Your task to perform on an android device: Go to display settings Image 0: 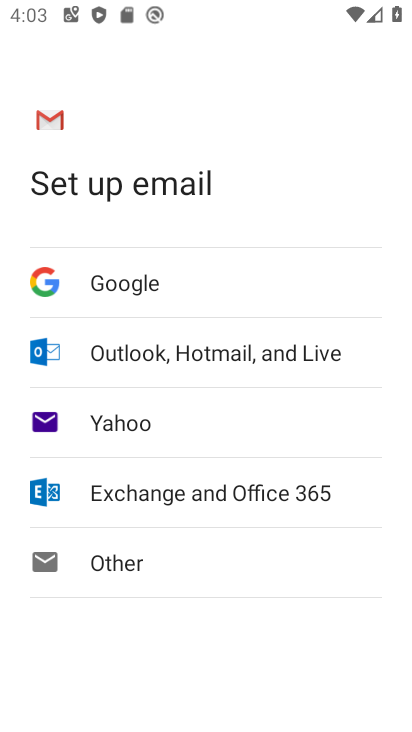
Step 0: press home button
Your task to perform on an android device: Go to display settings Image 1: 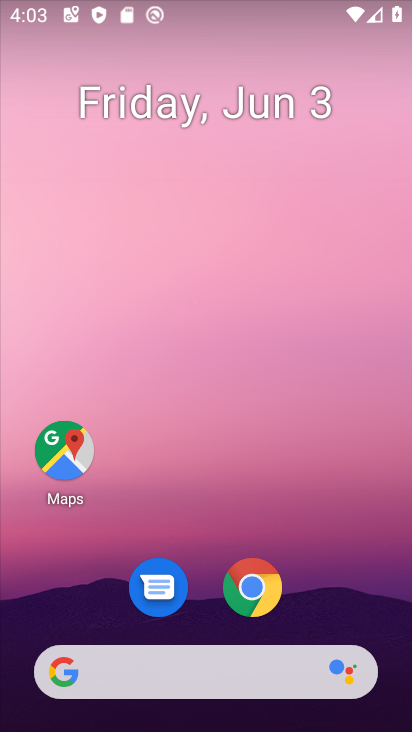
Step 1: drag from (348, 505) to (346, 83)
Your task to perform on an android device: Go to display settings Image 2: 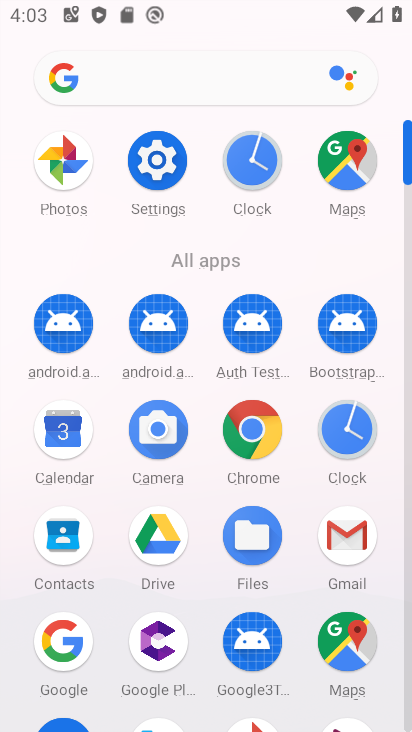
Step 2: click (164, 145)
Your task to perform on an android device: Go to display settings Image 3: 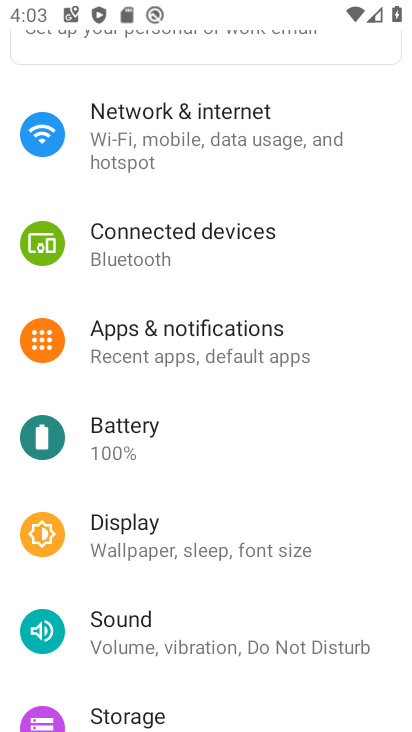
Step 3: click (170, 538)
Your task to perform on an android device: Go to display settings Image 4: 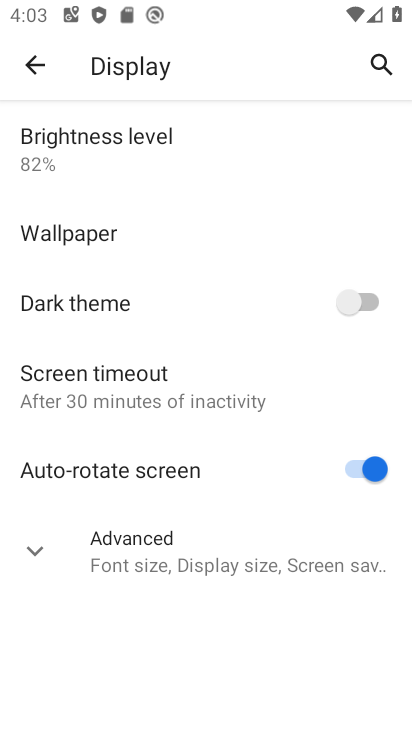
Step 4: task complete